Your task to perform on an android device: Check the weather Image 0: 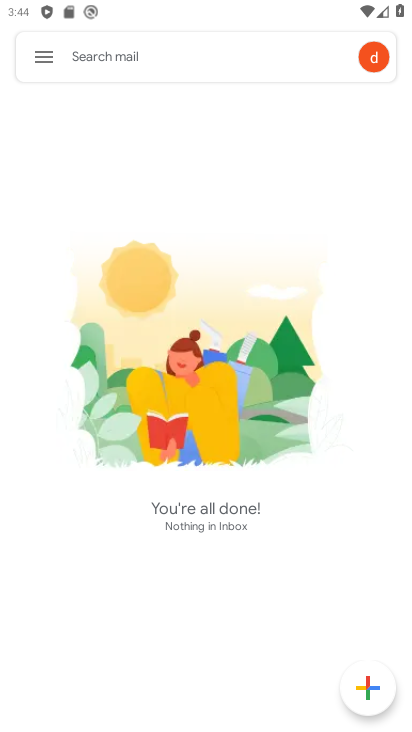
Step 0: press home button
Your task to perform on an android device: Check the weather Image 1: 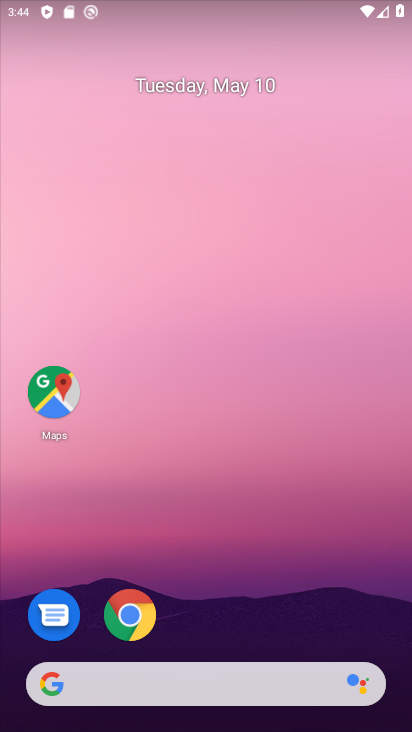
Step 1: click (140, 629)
Your task to perform on an android device: Check the weather Image 2: 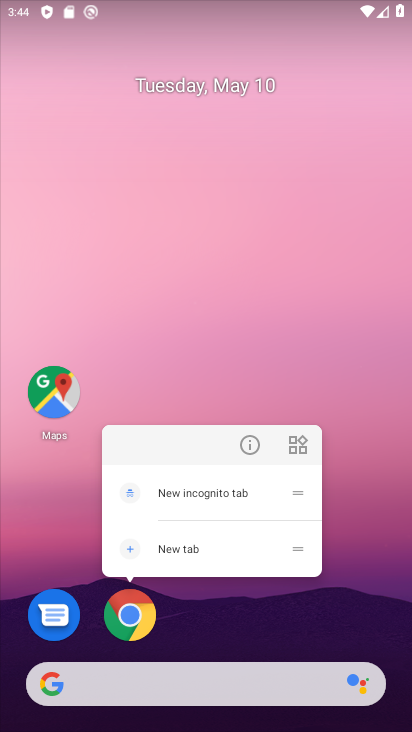
Step 2: click (138, 609)
Your task to perform on an android device: Check the weather Image 3: 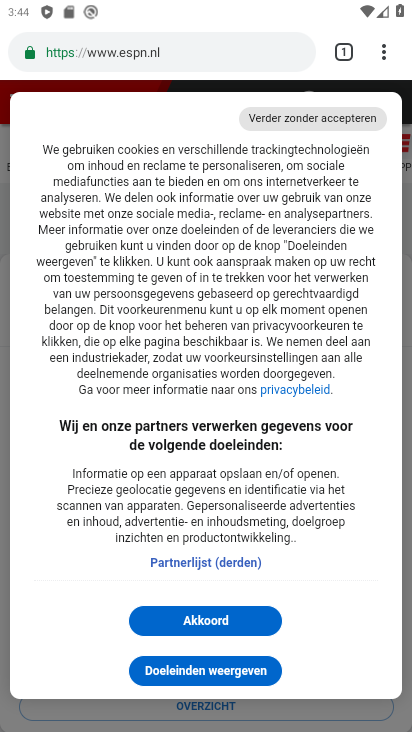
Step 3: click (230, 54)
Your task to perform on an android device: Check the weather Image 4: 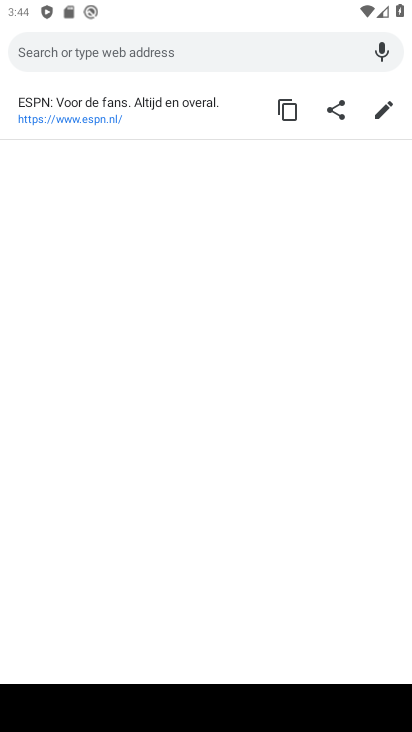
Step 4: type "check the weather"
Your task to perform on an android device: Check the weather Image 5: 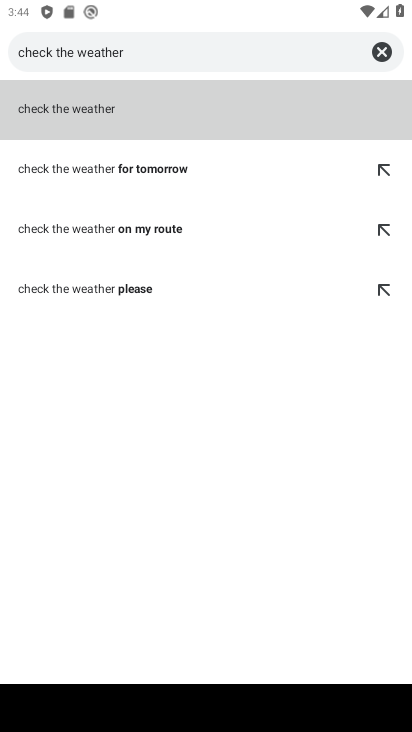
Step 5: click (62, 119)
Your task to perform on an android device: Check the weather Image 6: 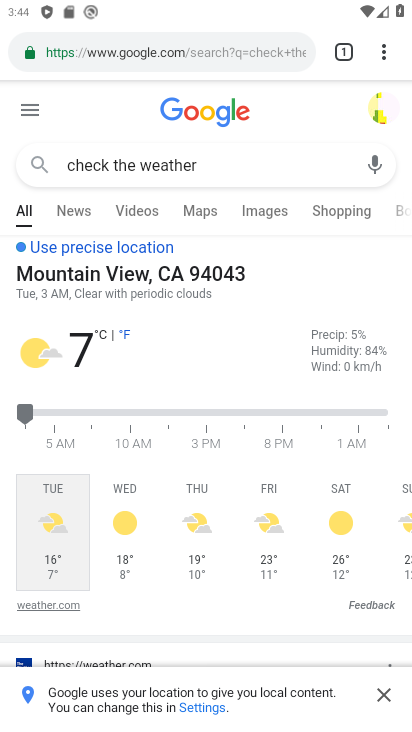
Step 6: task complete